Your task to perform on an android device: Go to accessibility settings Image 0: 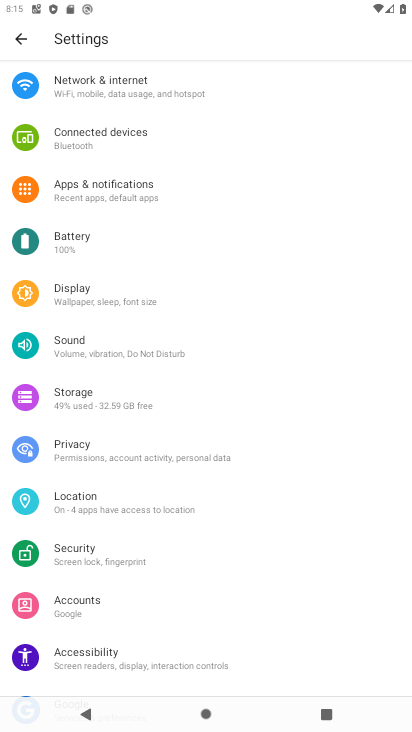
Step 0: press back button
Your task to perform on an android device: Go to accessibility settings Image 1: 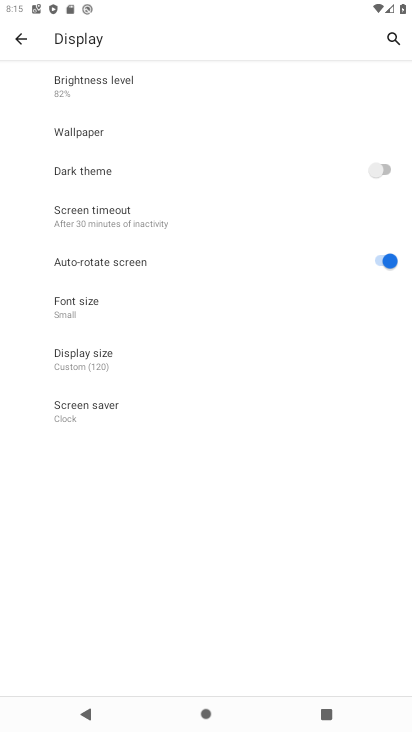
Step 1: press back button
Your task to perform on an android device: Go to accessibility settings Image 2: 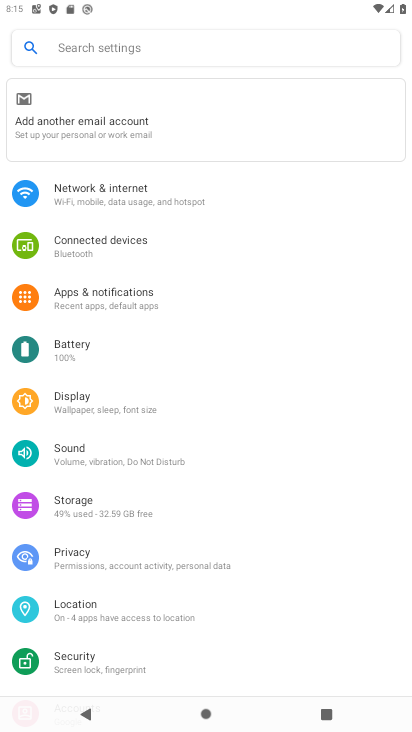
Step 2: press back button
Your task to perform on an android device: Go to accessibility settings Image 3: 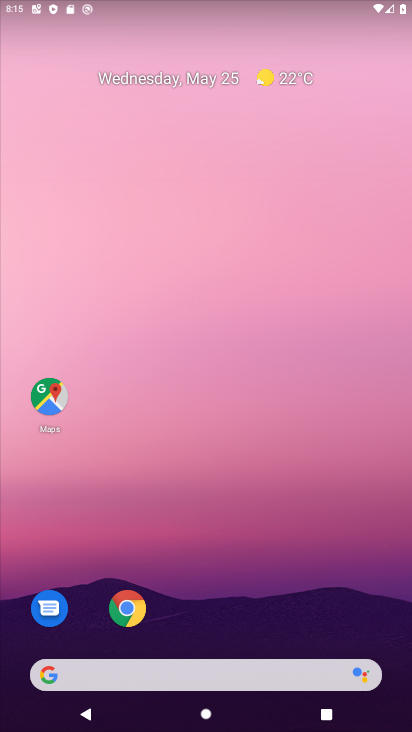
Step 3: drag from (240, 636) to (336, 75)
Your task to perform on an android device: Go to accessibility settings Image 4: 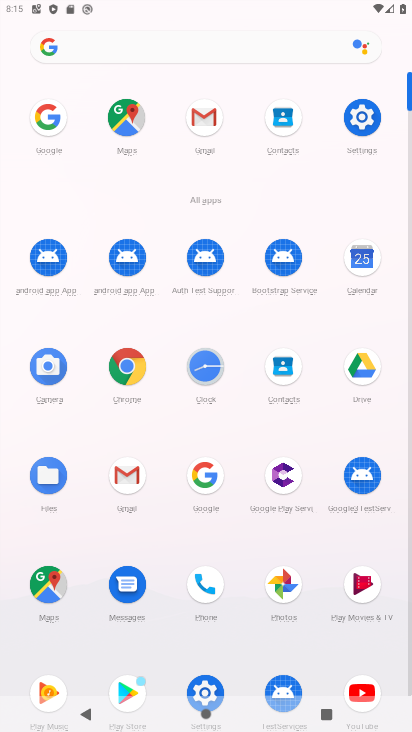
Step 4: click (362, 118)
Your task to perform on an android device: Go to accessibility settings Image 5: 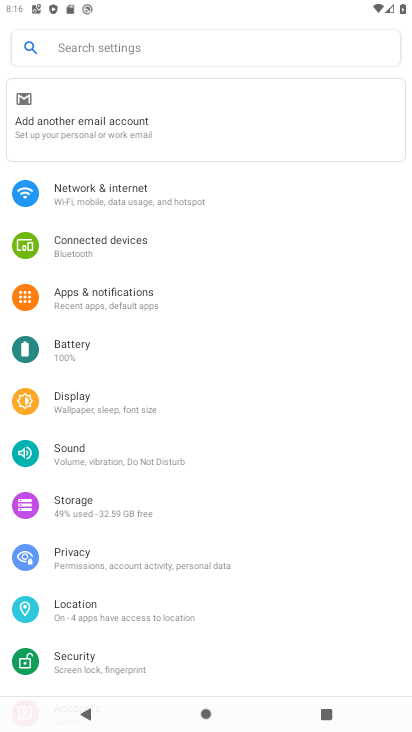
Step 5: drag from (157, 532) to (221, 439)
Your task to perform on an android device: Go to accessibility settings Image 6: 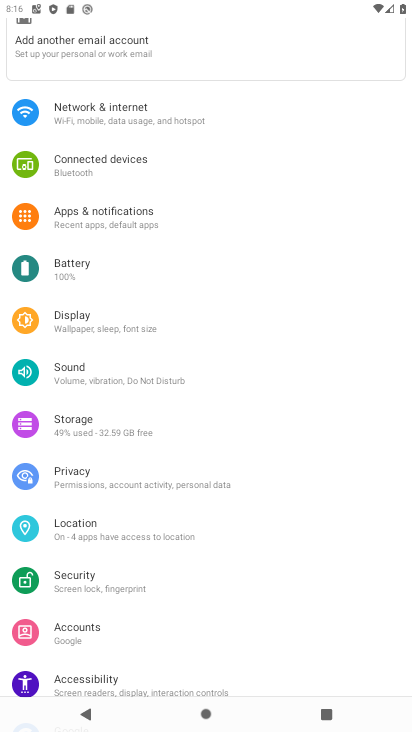
Step 6: drag from (160, 611) to (251, 501)
Your task to perform on an android device: Go to accessibility settings Image 7: 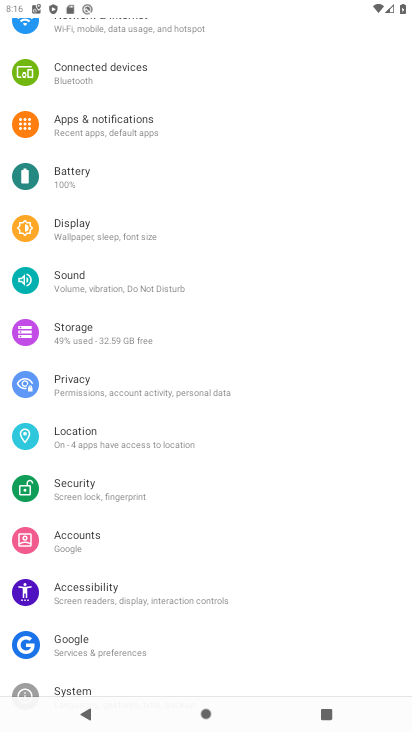
Step 7: click (104, 585)
Your task to perform on an android device: Go to accessibility settings Image 8: 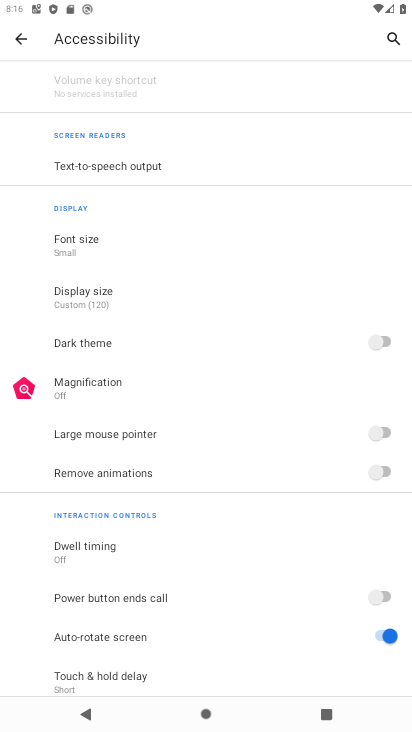
Step 8: task complete